Your task to perform on an android device: What's the weather going to be tomorrow? Image 0: 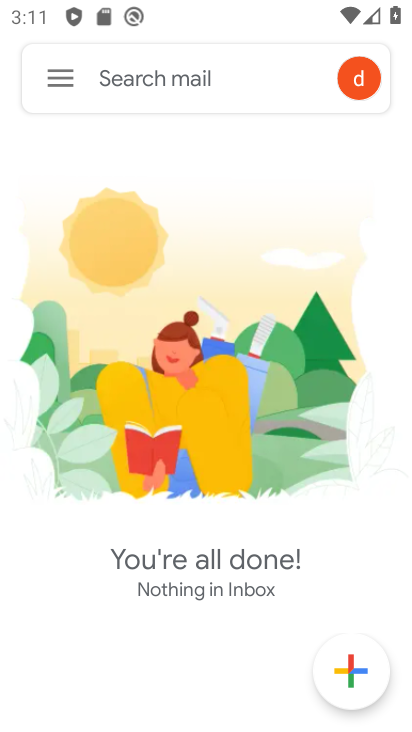
Step 0: press home button
Your task to perform on an android device: What's the weather going to be tomorrow? Image 1: 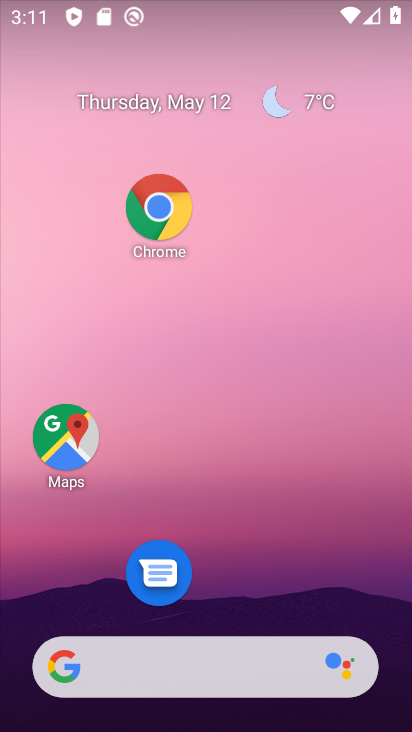
Step 1: click (282, 115)
Your task to perform on an android device: What's the weather going to be tomorrow? Image 2: 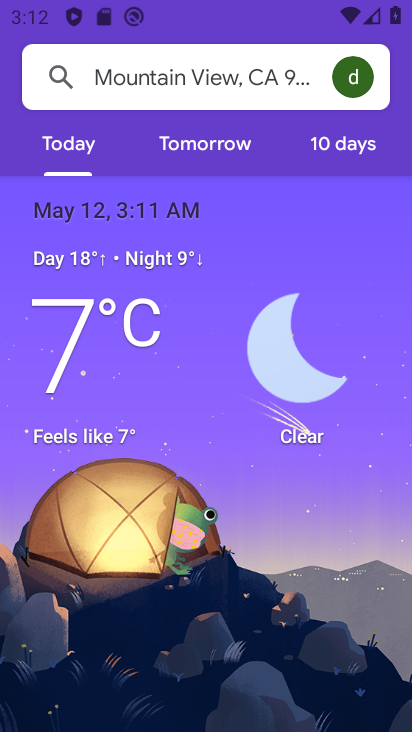
Step 2: click (252, 153)
Your task to perform on an android device: What's the weather going to be tomorrow? Image 3: 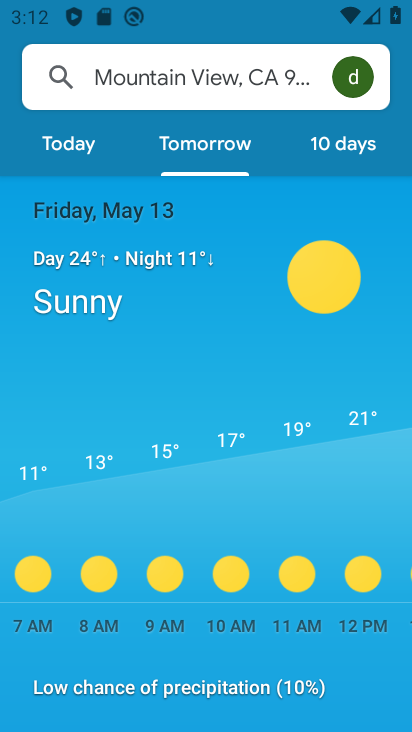
Step 3: task complete